Your task to perform on an android device: Search for seafood restaurants on Google Maps Image 0: 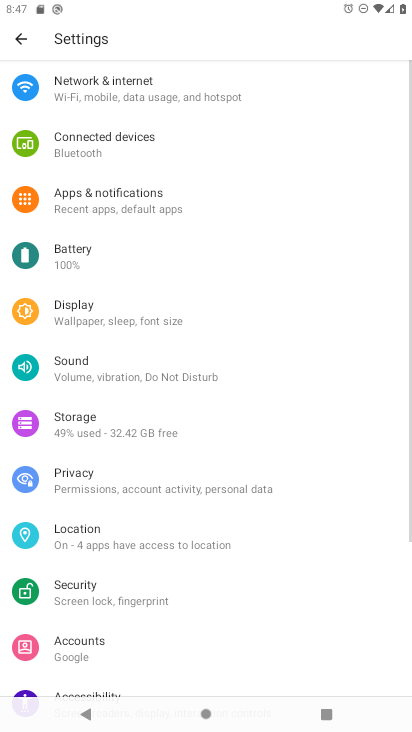
Step 0: press home button
Your task to perform on an android device: Search for seafood restaurants on Google Maps Image 1: 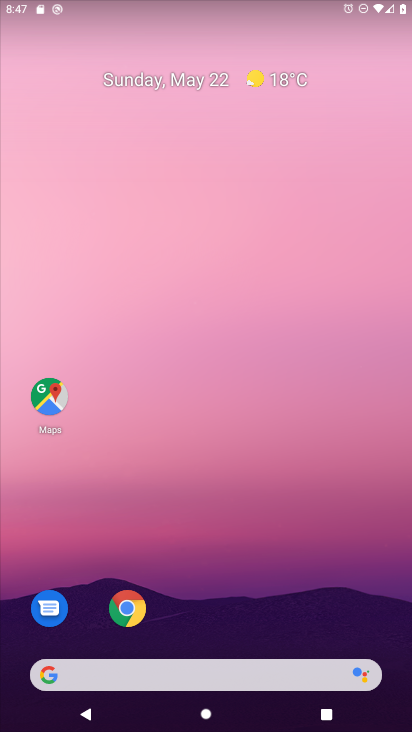
Step 1: drag from (230, 722) to (229, 147)
Your task to perform on an android device: Search for seafood restaurants on Google Maps Image 2: 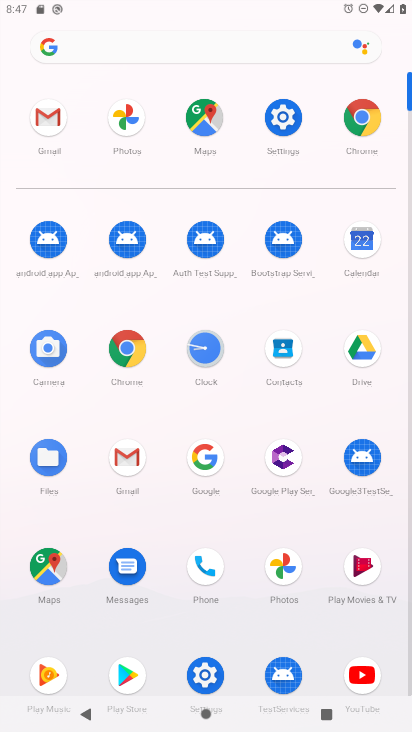
Step 2: click (38, 566)
Your task to perform on an android device: Search for seafood restaurants on Google Maps Image 3: 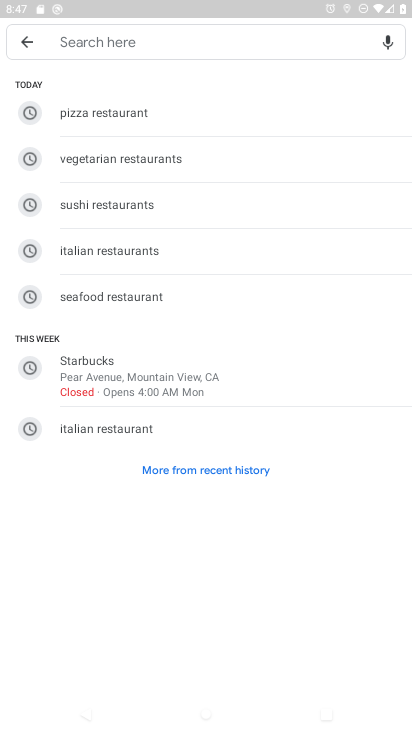
Step 3: click (91, 43)
Your task to perform on an android device: Search for seafood restaurants on Google Maps Image 4: 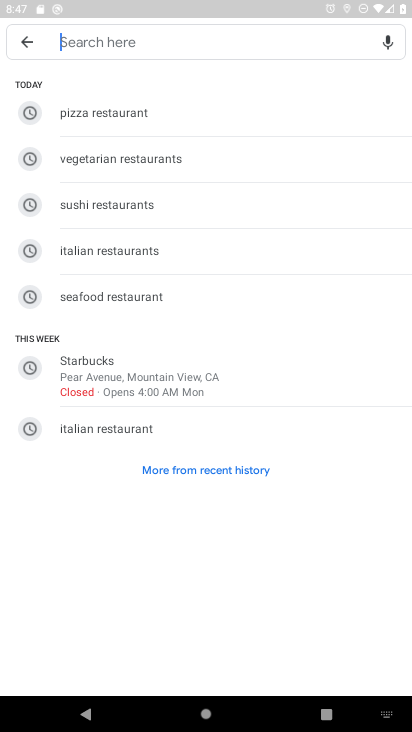
Step 4: type "seafood restaurants"
Your task to perform on an android device: Search for seafood restaurants on Google Maps Image 5: 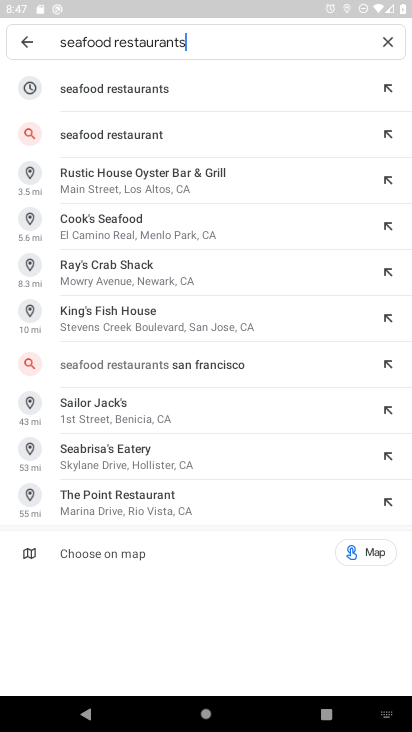
Step 5: click (144, 86)
Your task to perform on an android device: Search for seafood restaurants on Google Maps Image 6: 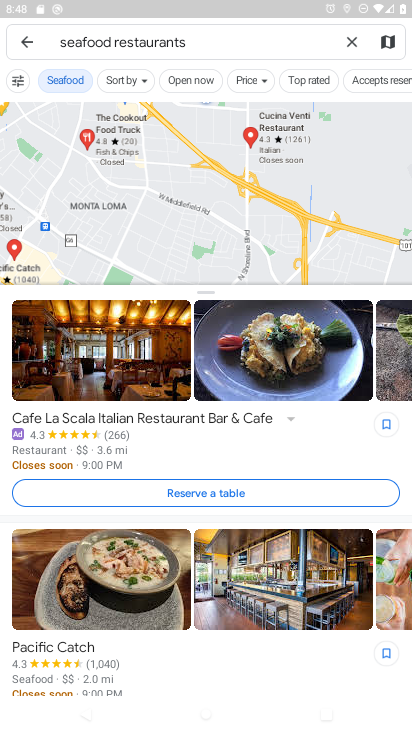
Step 6: task complete